Your task to perform on an android device: open app "Grab" (install if not already installed), go to login, and select forgot password Image 0: 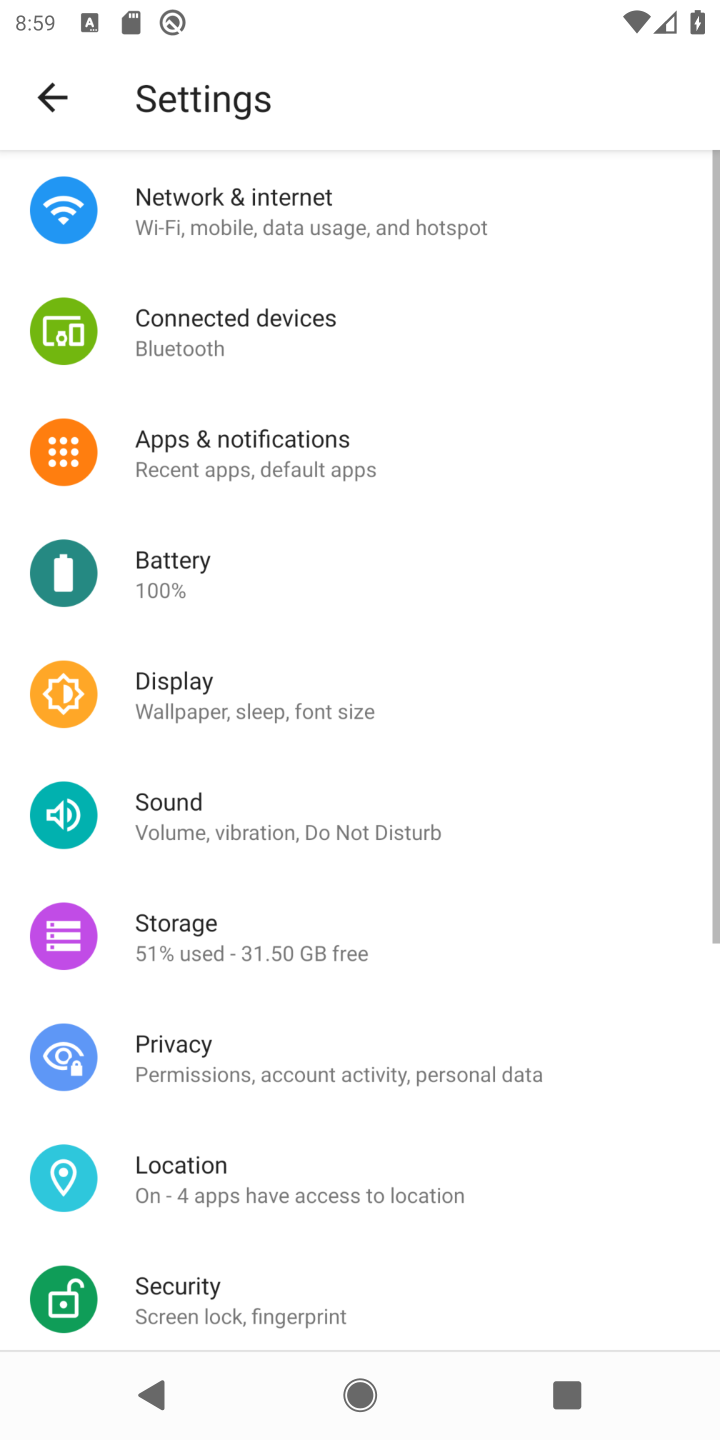
Step 0: press home button
Your task to perform on an android device: open app "Grab" (install if not already installed), go to login, and select forgot password Image 1: 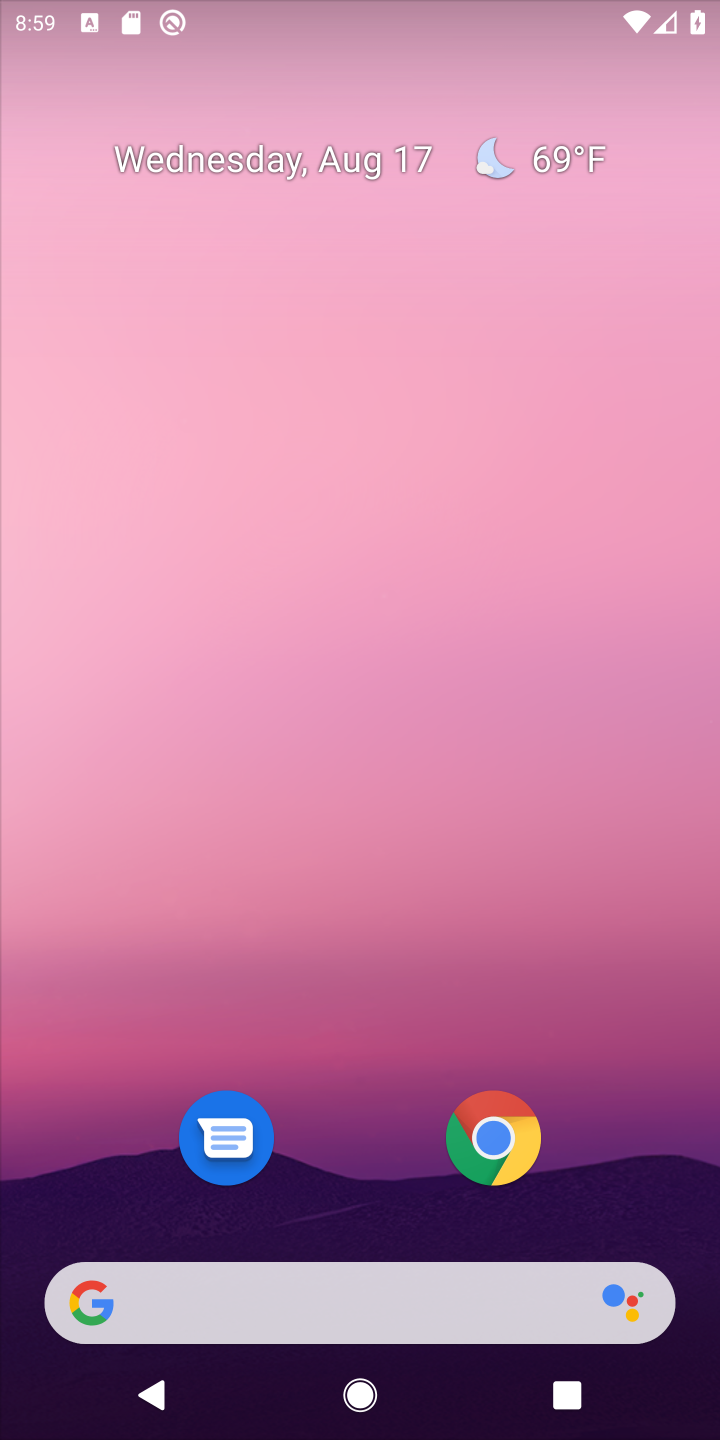
Step 1: press home button
Your task to perform on an android device: open app "Grab" (install if not already installed), go to login, and select forgot password Image 2: 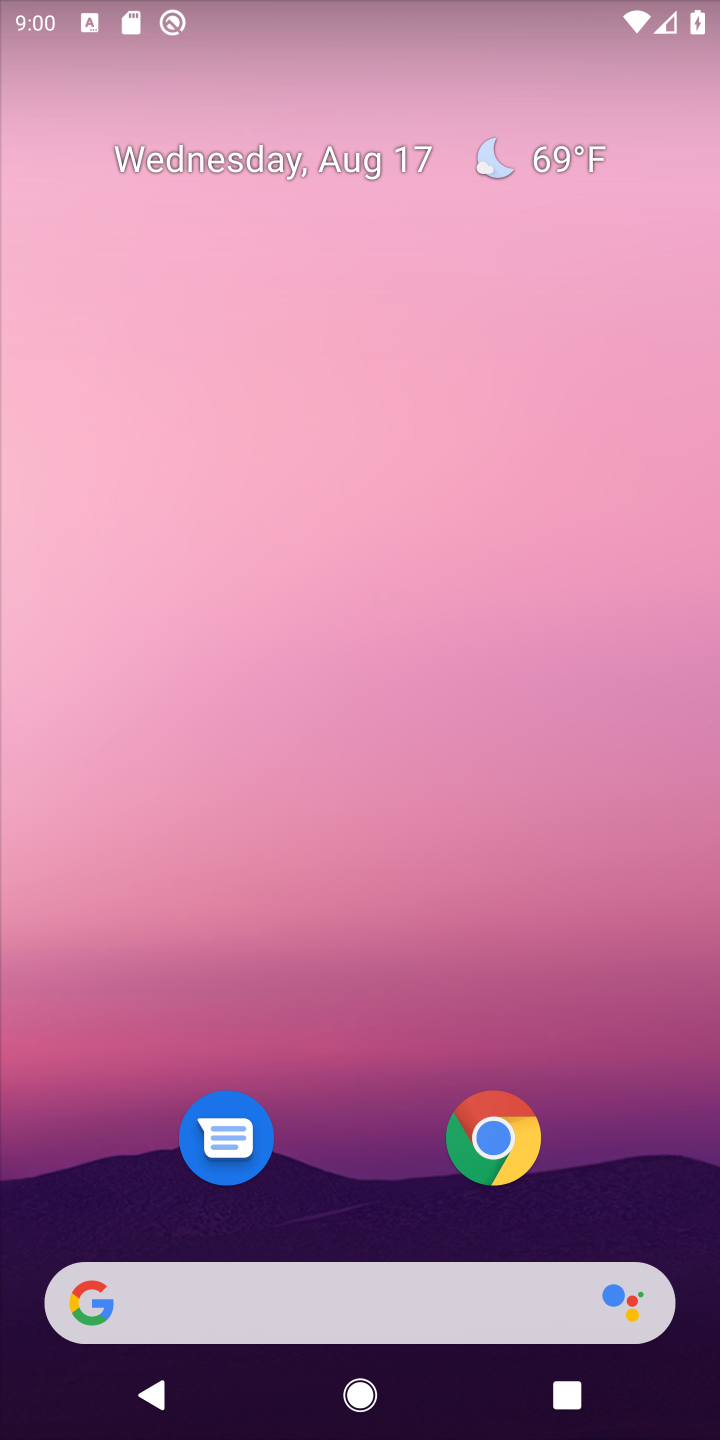
Step 2: drag from (370, 1150) to (347, 102)
Your task to perform on an android device: open app "Grab" (install if not already installed), go to login, and select forgot password Image 3: 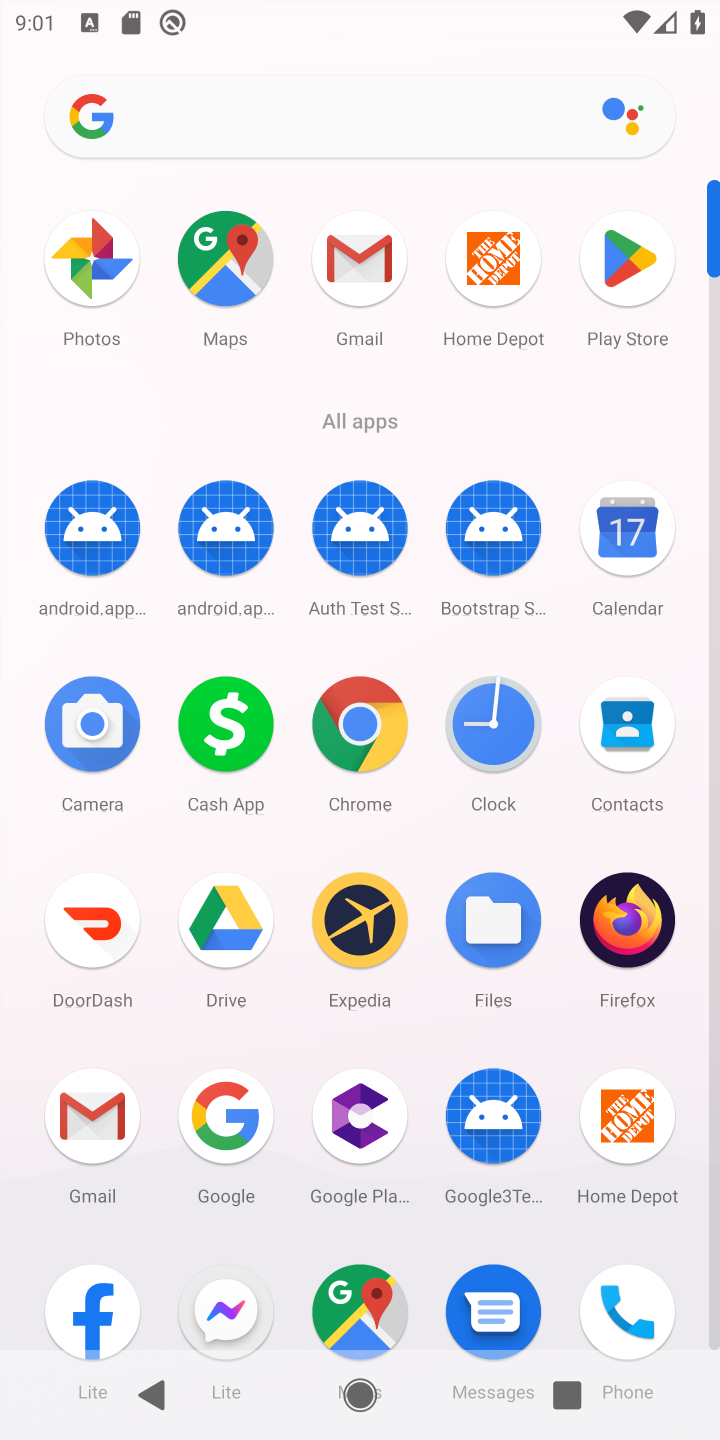
Step 3: click (616, 264)
Your task to perform on an android device: open app "Grab" (install if not already installed), go to login, and select forgot password Image 4: 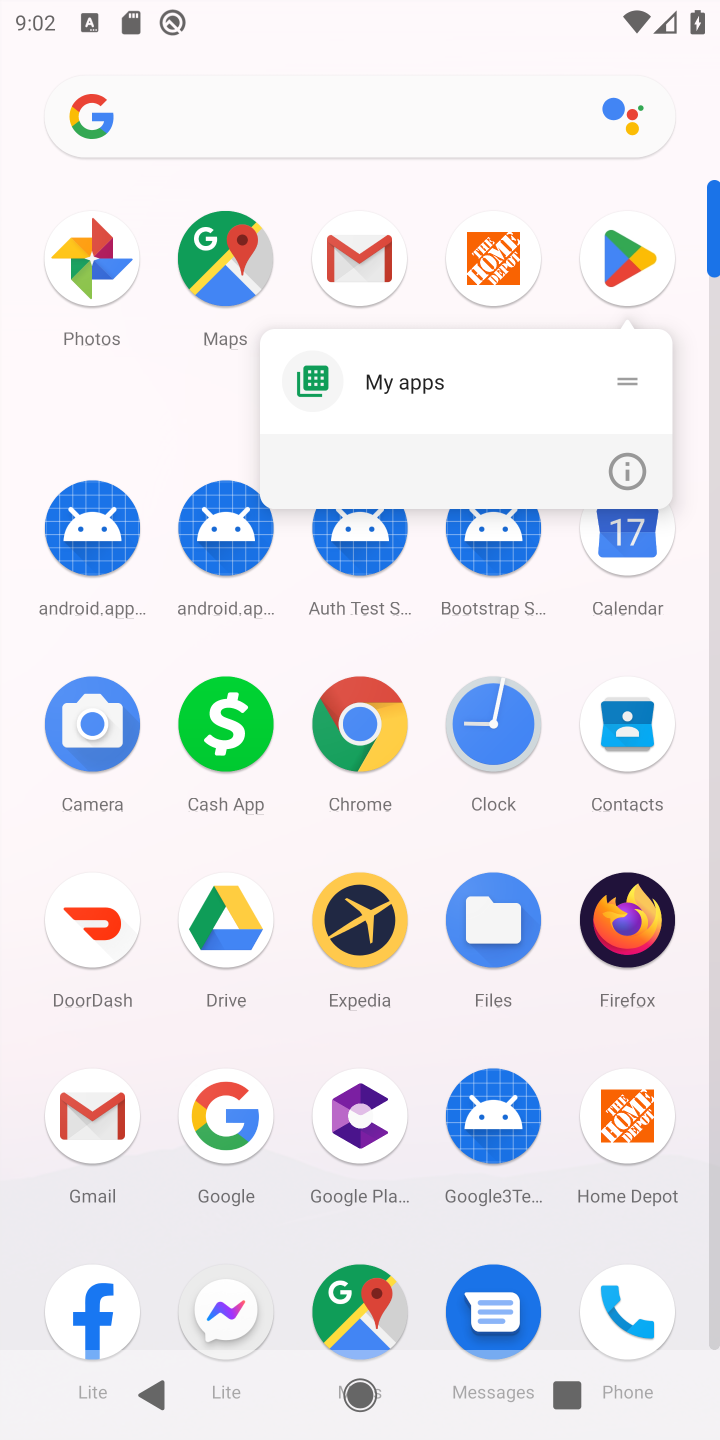
Step 4: click (621, 265)
Your task to perform on an android device: open app "Grab" (install if not already installed), go to login, and select forgot password Image 5: 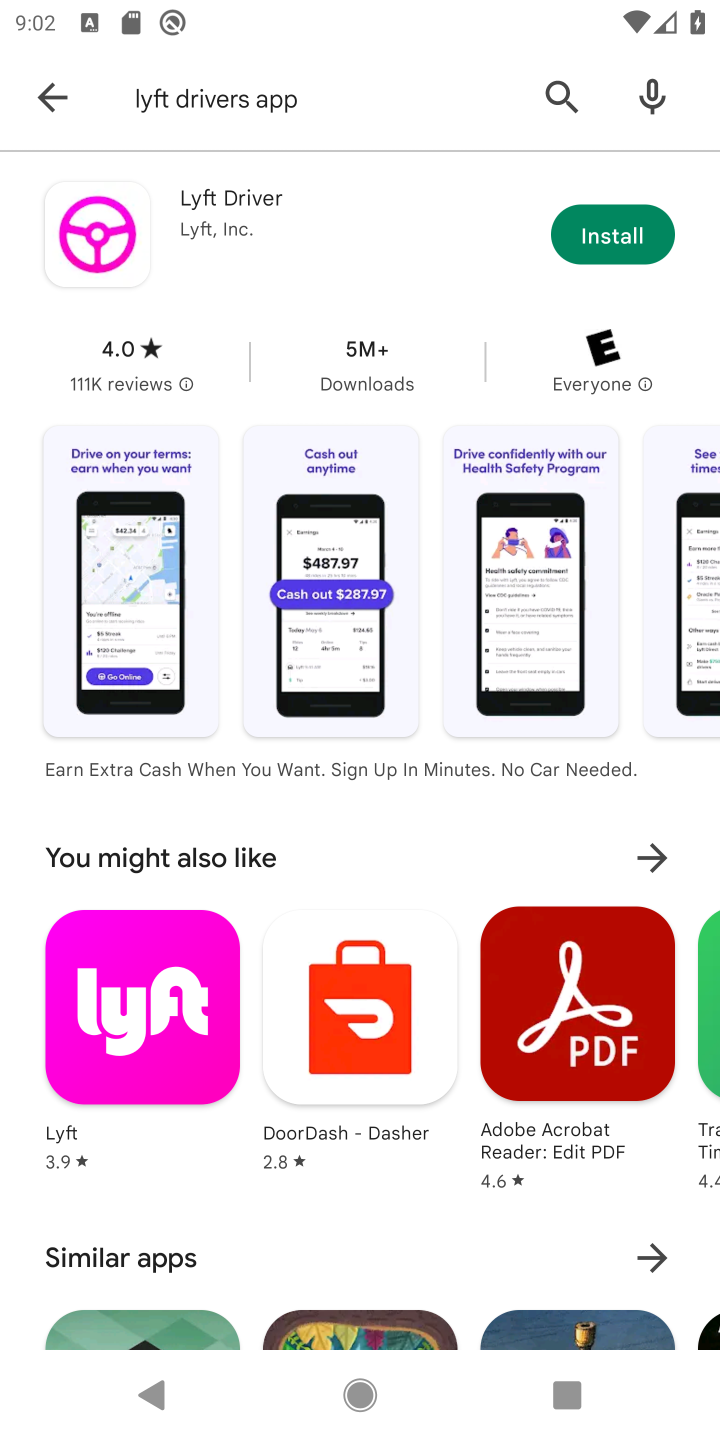
Step 5: click (60, 73)
Your task to perform on an android device: open app "Grab" (install if not already installed), go to login, and select forgot password Image 6: 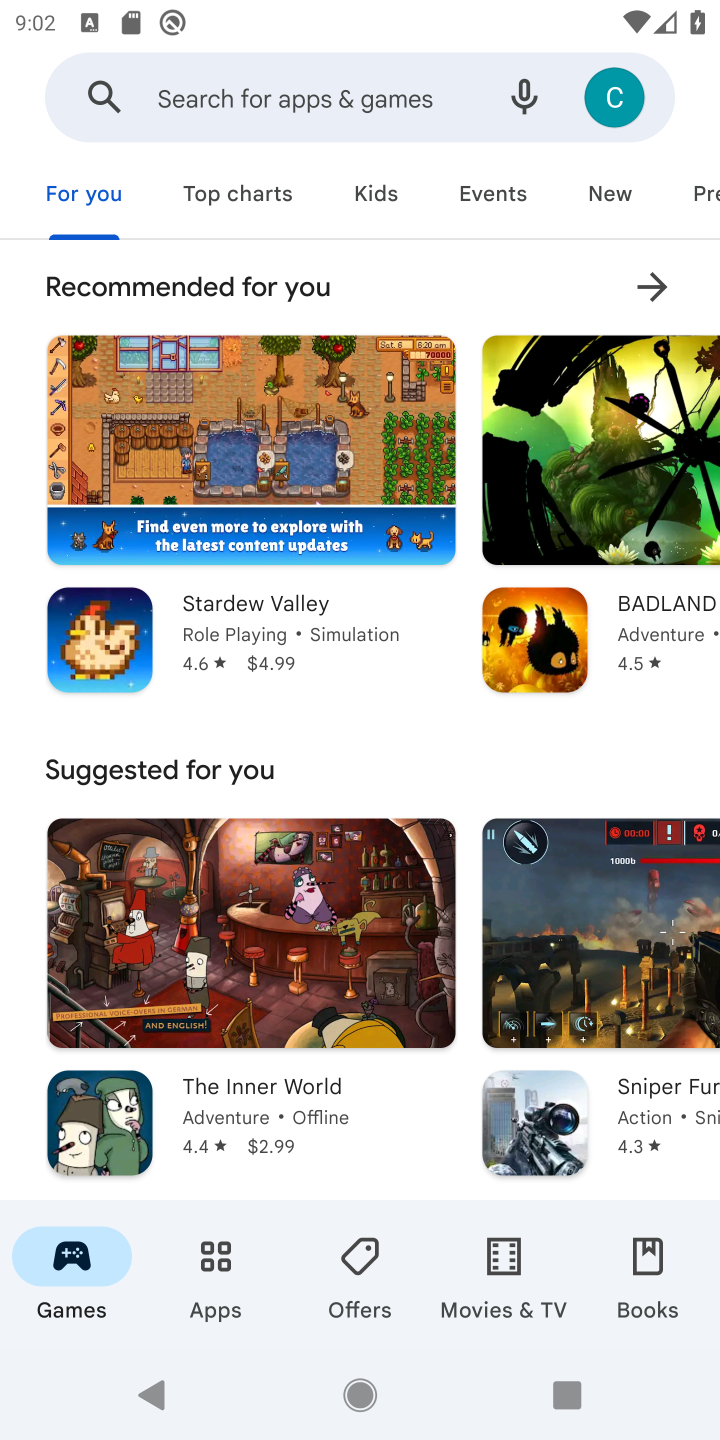
Step 6: click (304, 75)
Your task to perform on an android device: open app "Grab" (install if not already installed), go to login, and select forgot password Image 7: 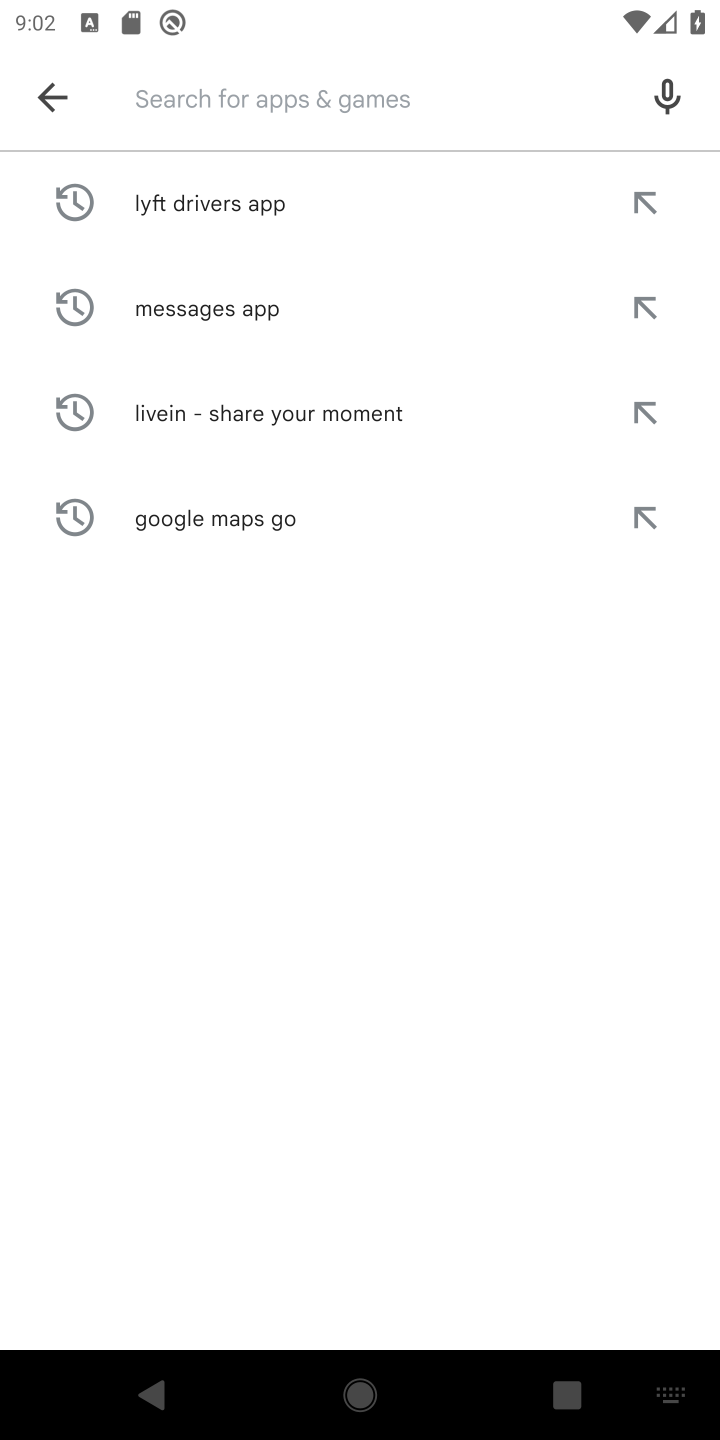
Step 7: type "grab "
Your task to perform on an android device: open app "Grab" (install if not already installed), go to login, and select forgot password Image 8: 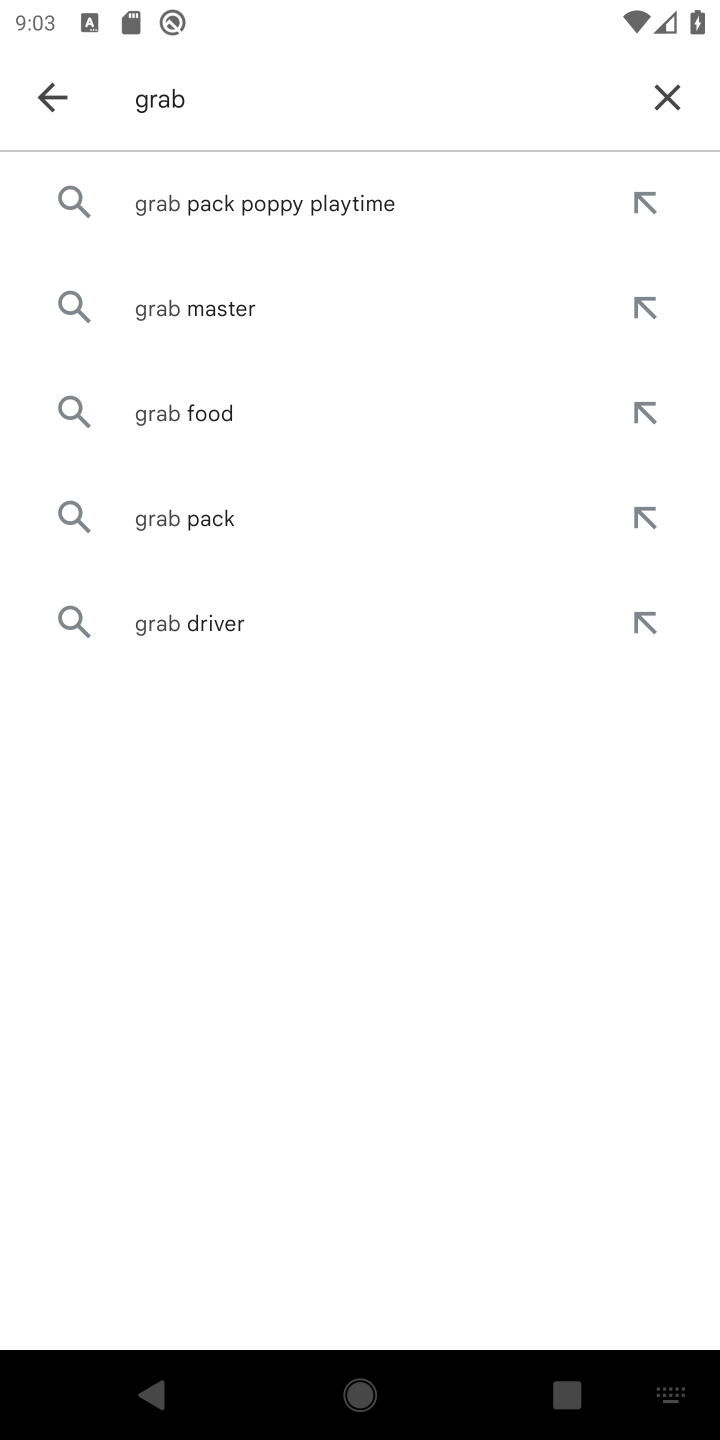
Step 8: click (269, 210)
Your task to perform on an android device: open app "Grab" (install if not already installed), go to login, and select forgot password Image 9: 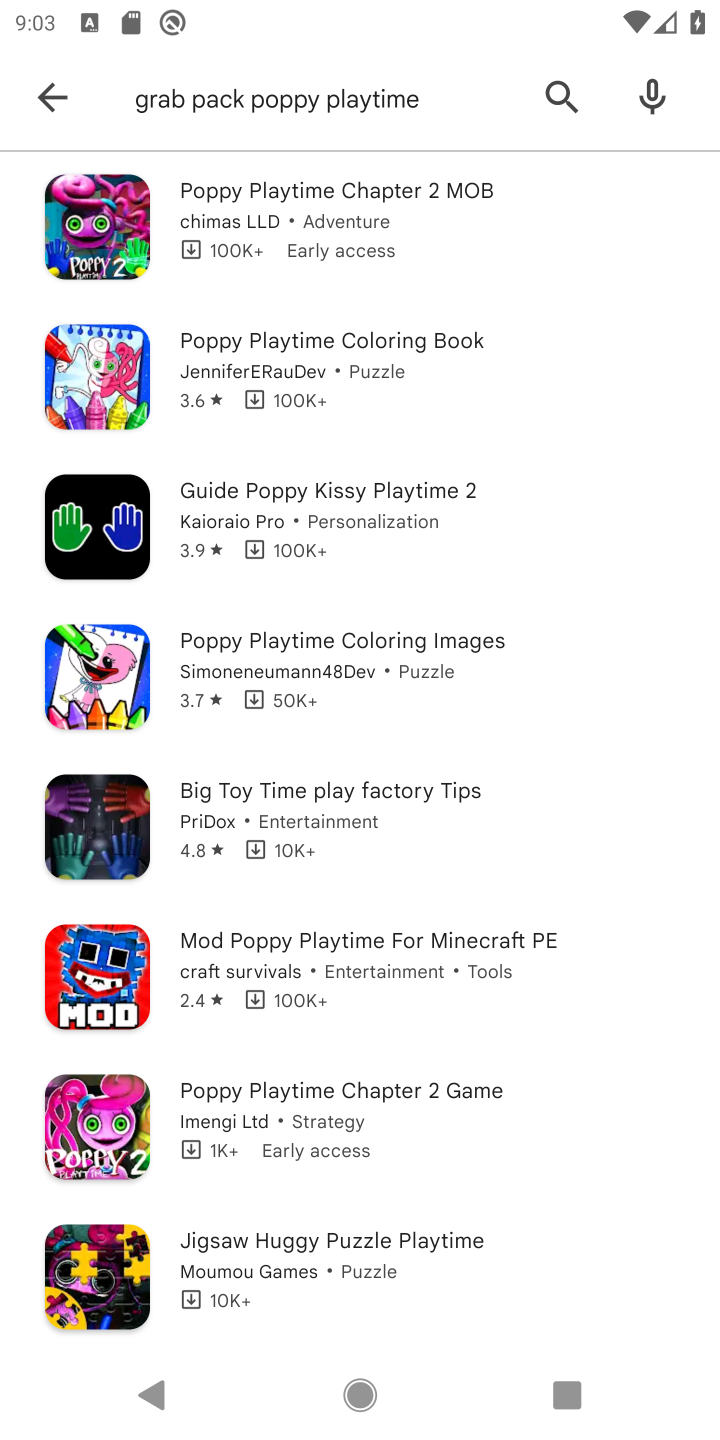
Step 9: click (405, 217)
Your task to perform on an android device: open app "Grab" (install if not already installed), go to login, and select forgot password Image 10: 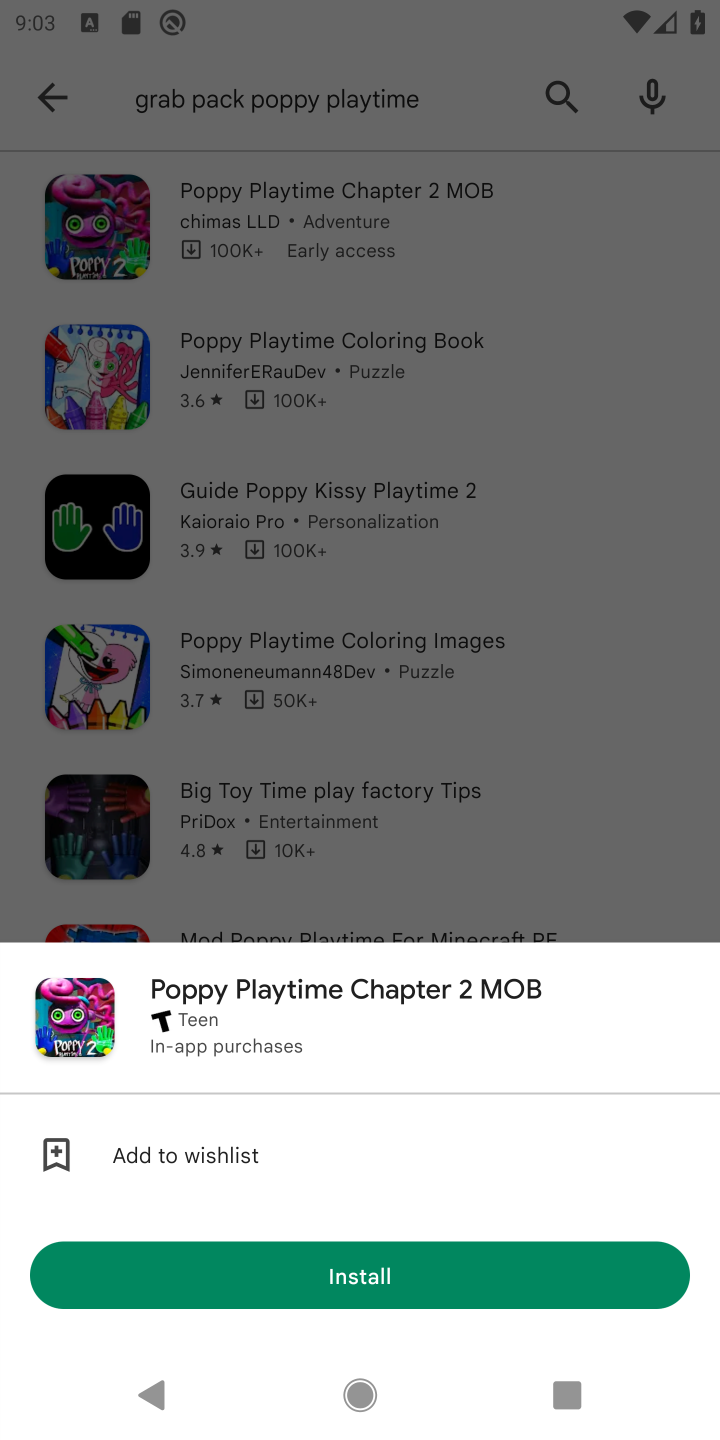
Step 10: click (438, 1262)
Your task to perform on an android device: open app "Grab" (install if not already installed), go to login, and select forgot password Image 11: 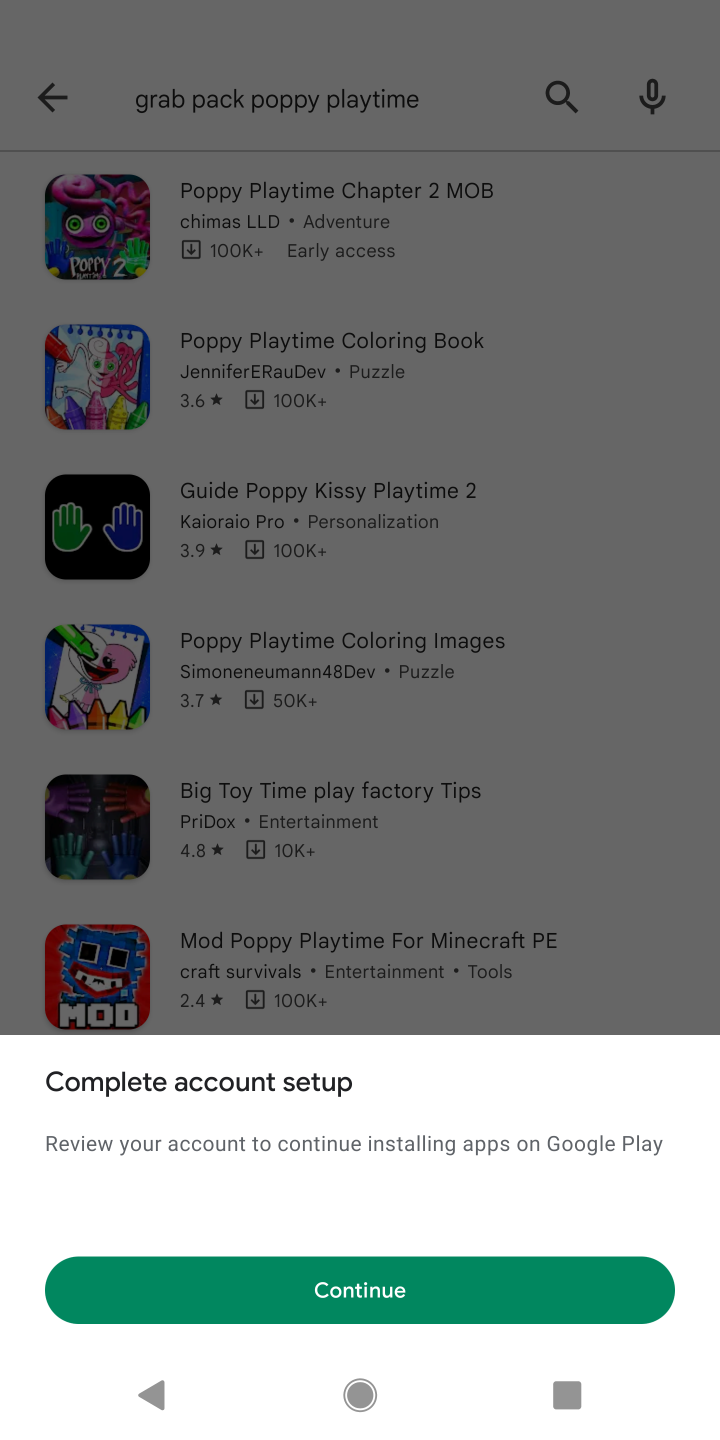
Step 11: task complete